Your task to perform on an android device: Go to eBay Image 0: 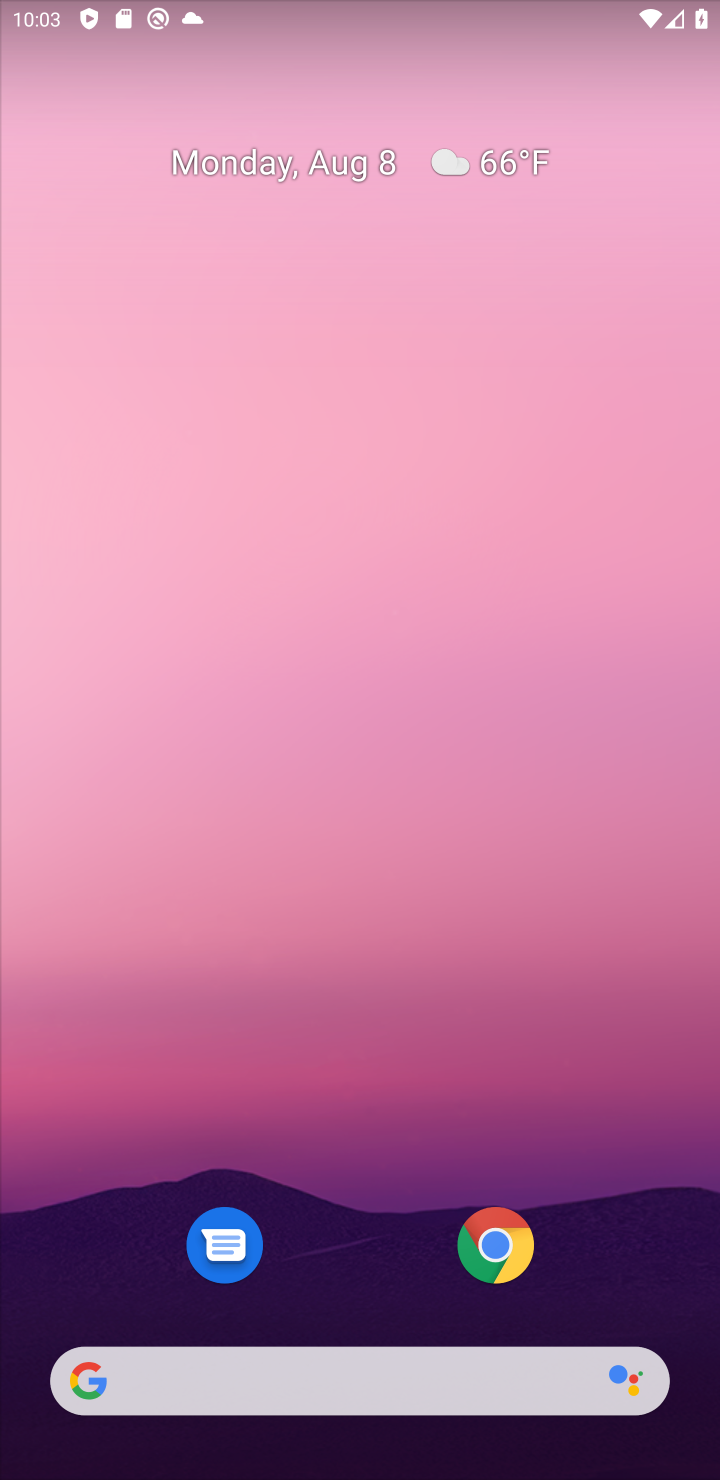
Step 0: click (503, 1247)
Your task to perform on an android device: Go to eBay Image 1: 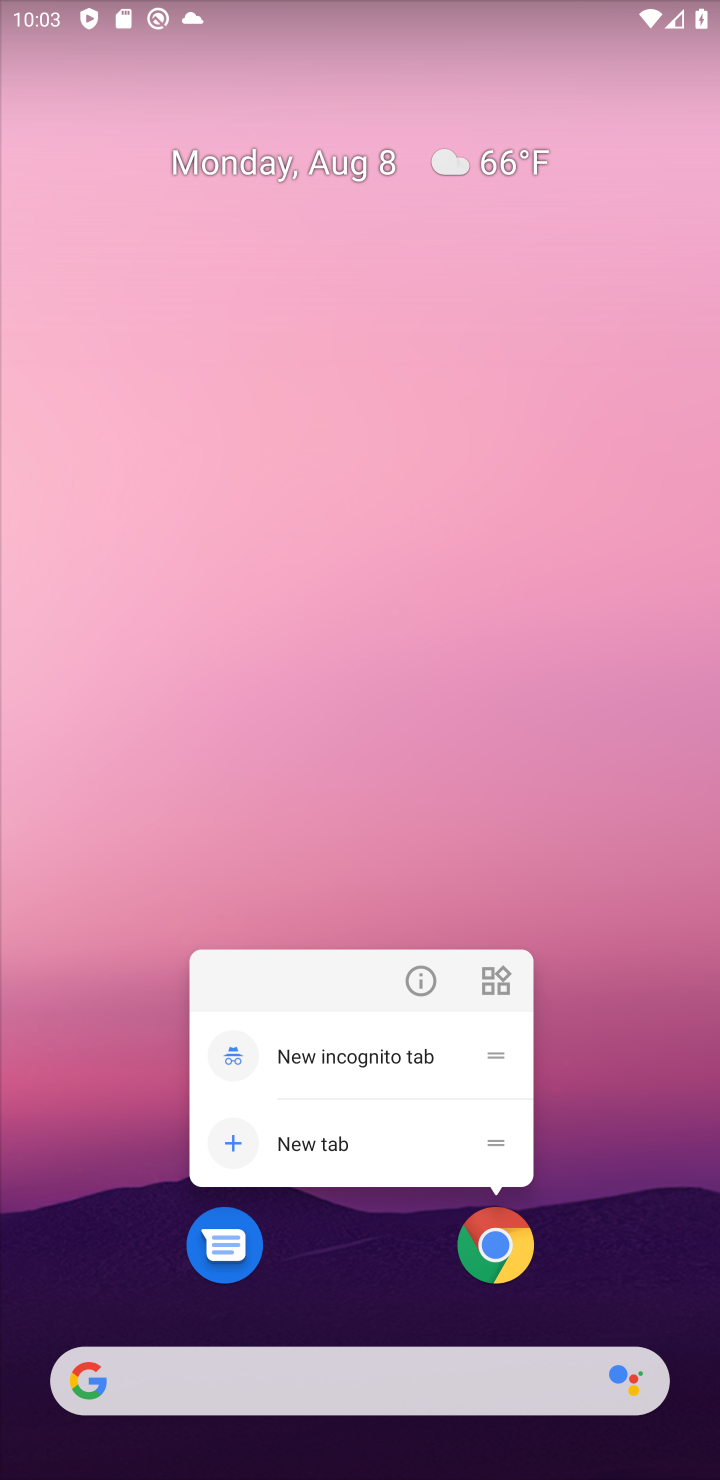
Step 1: click (503, 1247)
Your task to perform on an android device: Go to eBay Image 2: 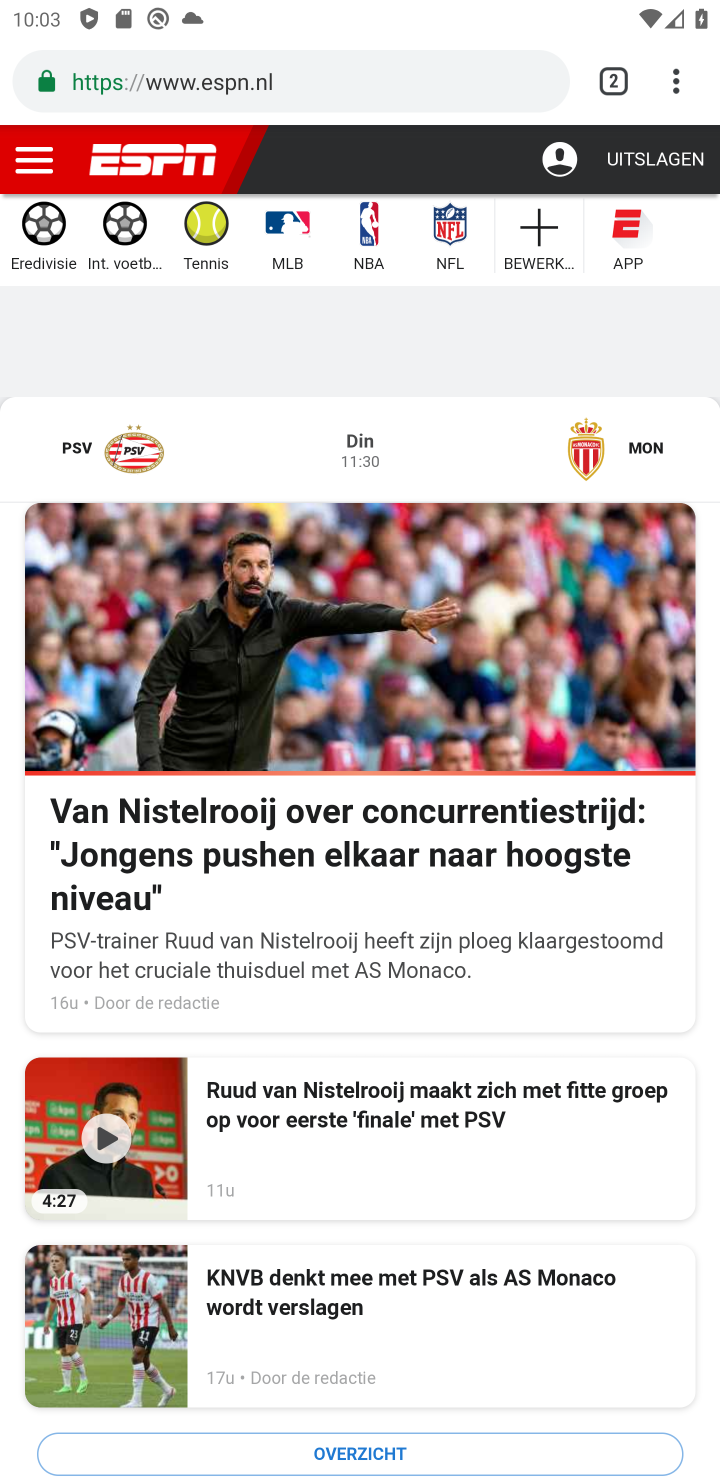
Step 2: click (679, 69)
Your task to perform on an android device: Go to eBay Image 3: 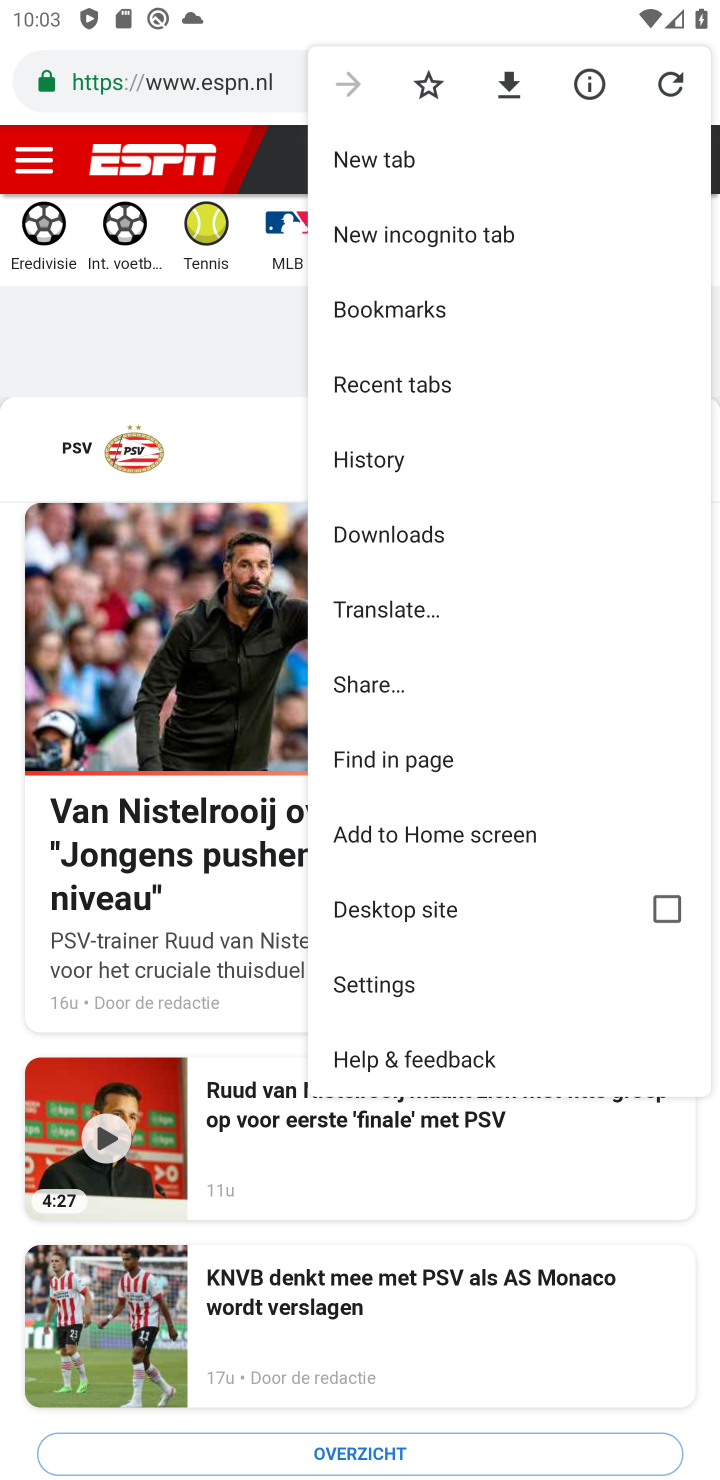
Step 3: click (367, 155)
Your task to perform on an android device: Go to eBay Image 4: 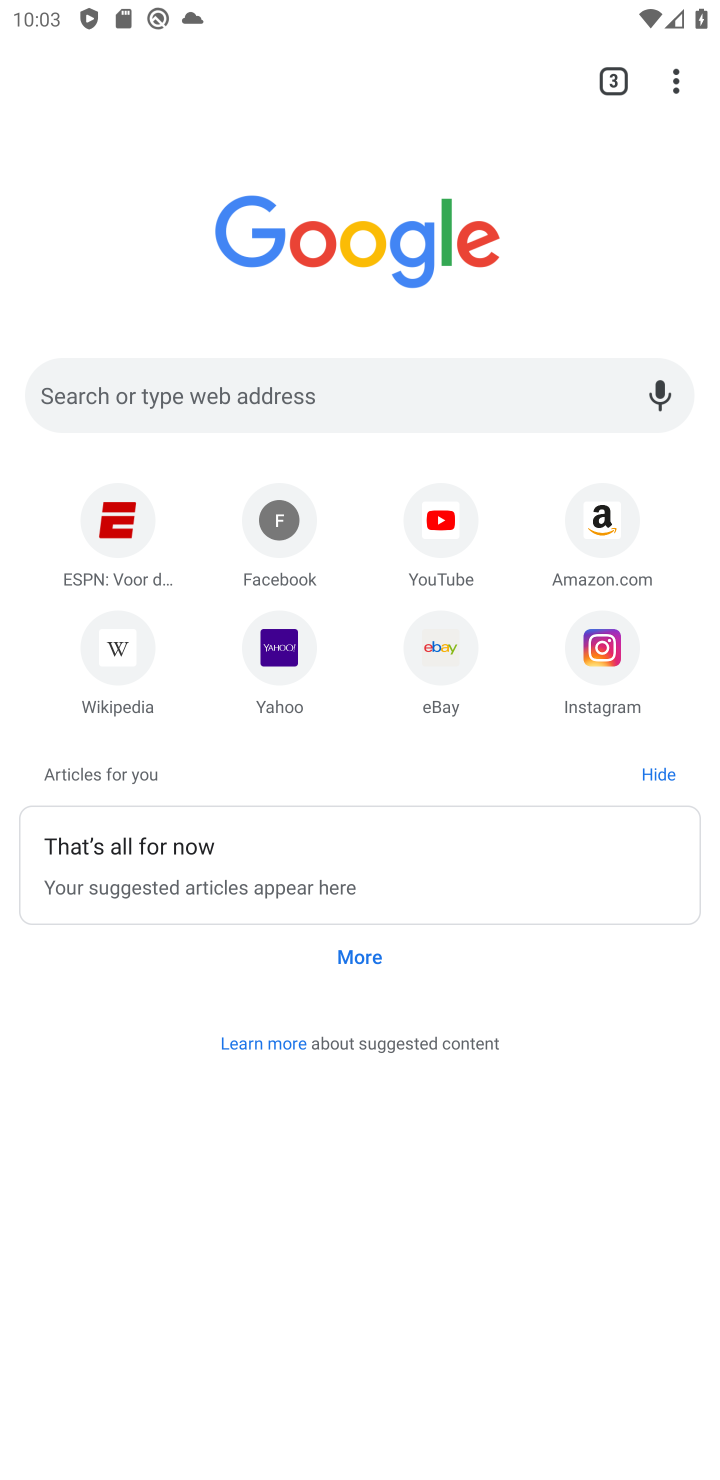
Step 4: click (447, 652)
Your task to perform on an android device: Go to eBay Image 5: 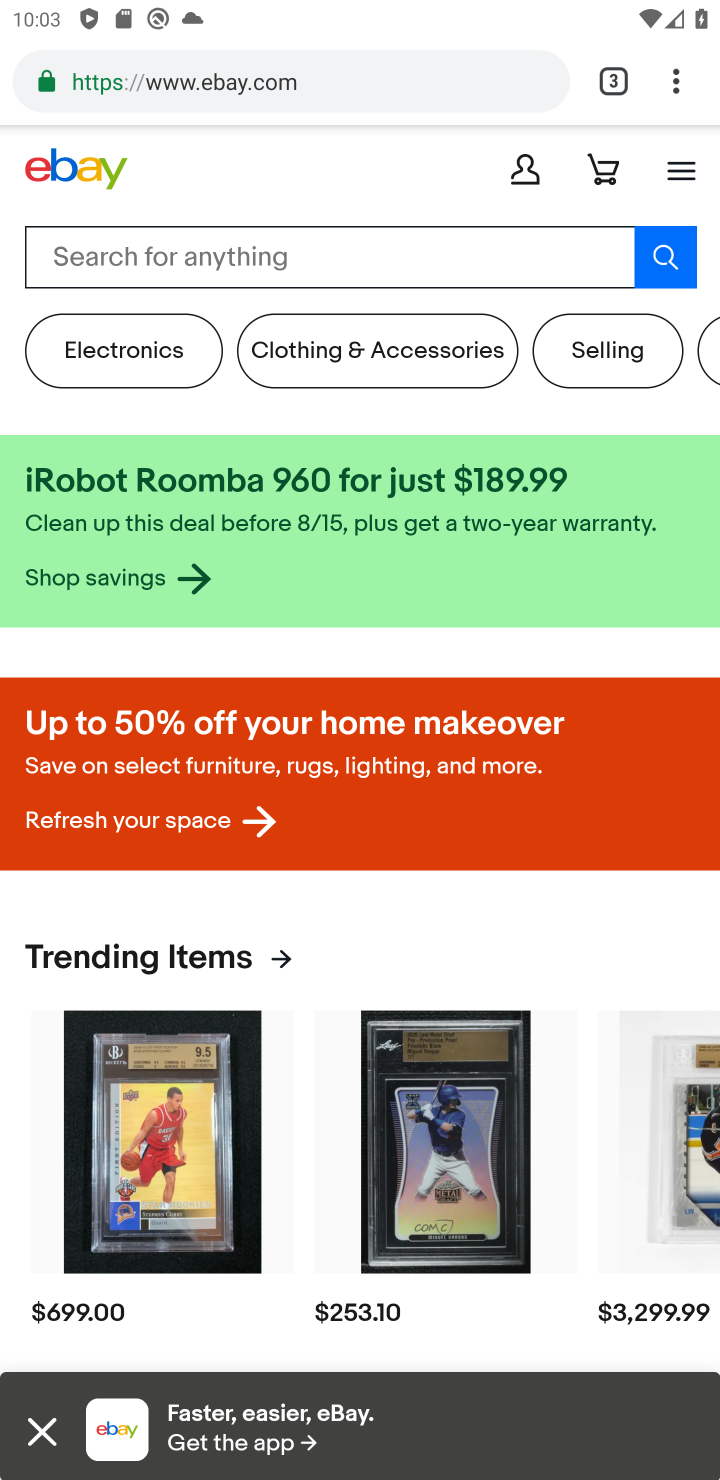
Step 5: task complete